Your task to perform on an android device: check google app version Image 0: 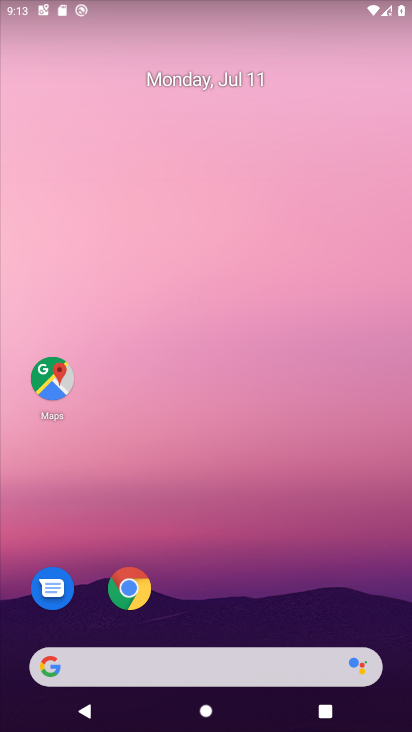
Step 0: drag from (221, 563) to (234, 68)
Your task to perform on an android device: check google app version Image 1: 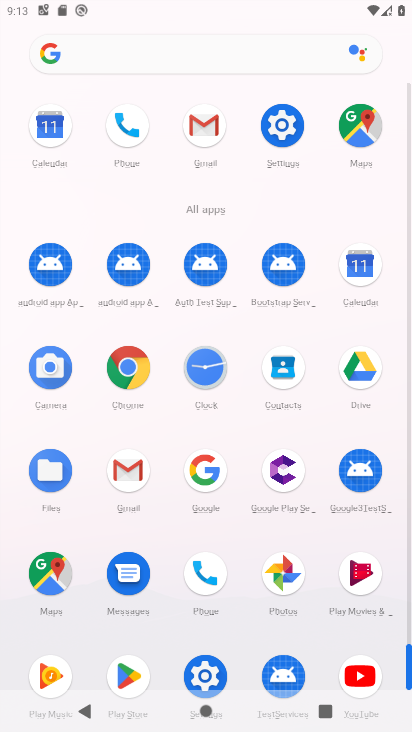
Step 1: click (205, 467)
Your task to perform on an android device: check google app version Image 2: 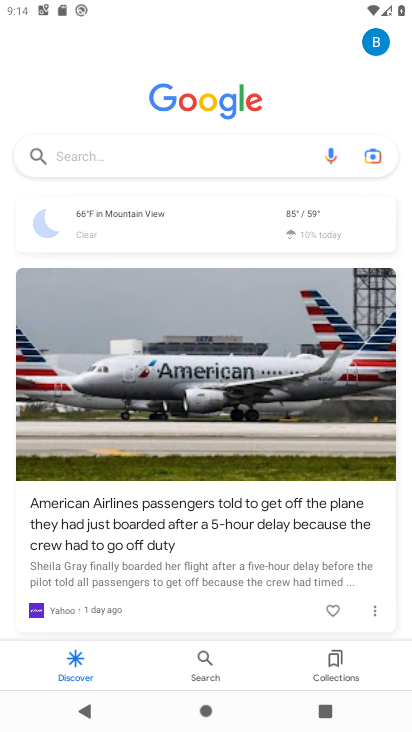
Step 2: click (370, 35)
Your task to perform on an android device: check google app version Image 3: 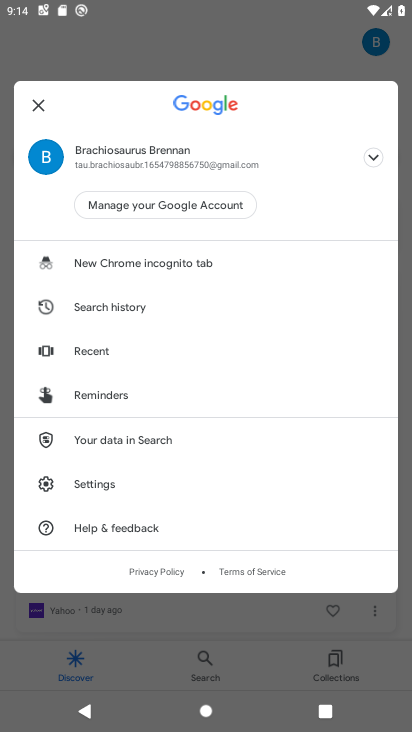
Step 3: click (89, 489)
Your task to perform on an android device: check google app version Image 4: 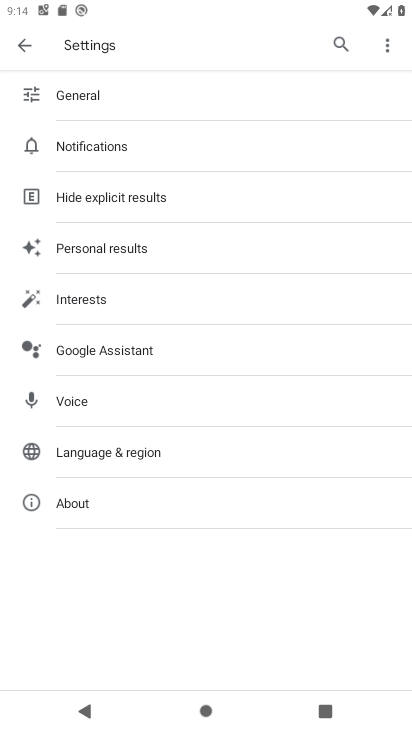
Step 4: click (144, 514)
Your task to perform on an android device: check google app version Image 5: 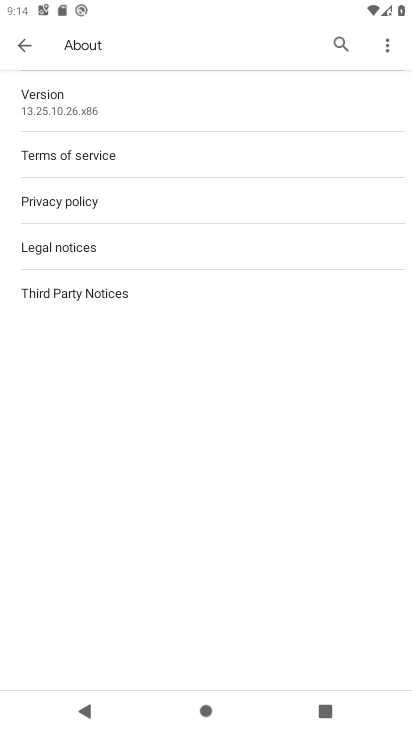
Step 5: click (89, 112)
Your task to perform on an android device: check google app version Image 6: 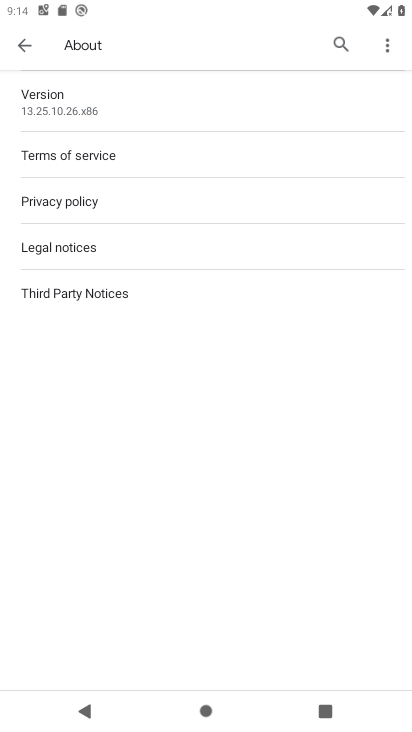
Step 6: task complete